Your task to perform on an android device: Open accessibility settings Image 0: 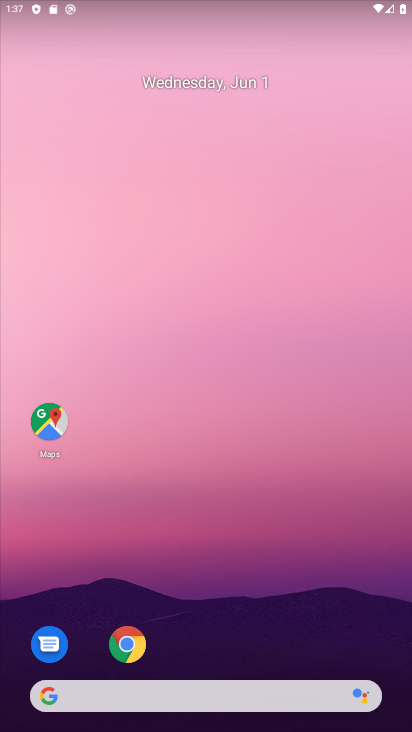
Step 0: drag from (272, 641) to (326, 98)
Your task to perform on an android device: Open accessibility settings Image 1: 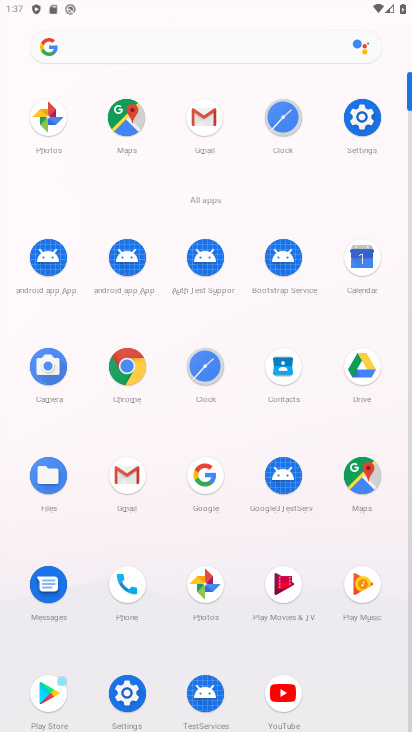
Step 1: click (359, 115)
Your task to perform on an android device: Open accessibility settings Image 2: 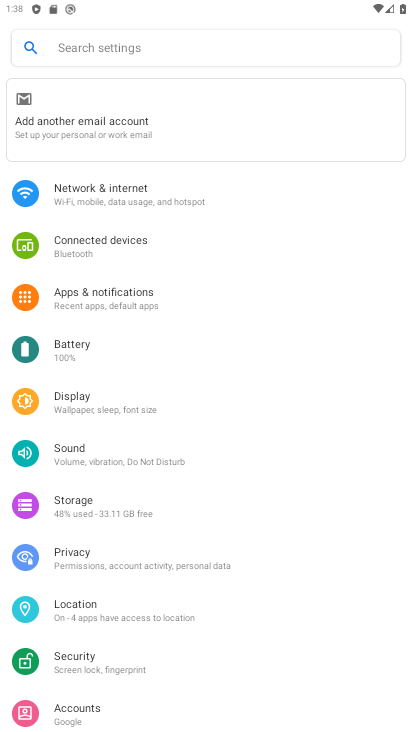
Step 2: drag from (148, 604) to (252, 328)
Your task to perform on an android device: Open accessibility settings Image 3: 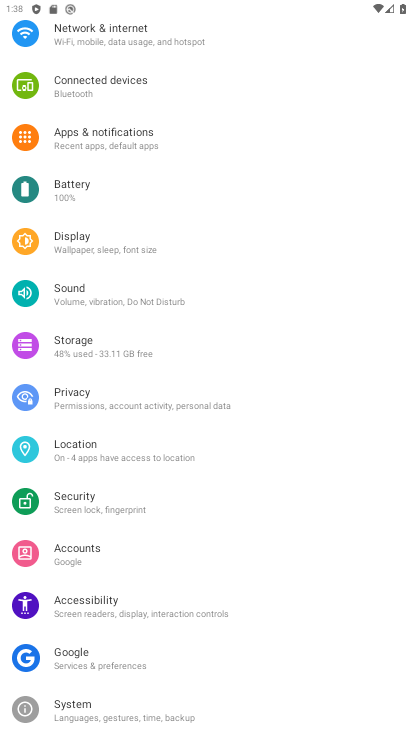
Step 3: click (90, 619)
Your task to perform on an android device: Open accessibility settings Image 4: 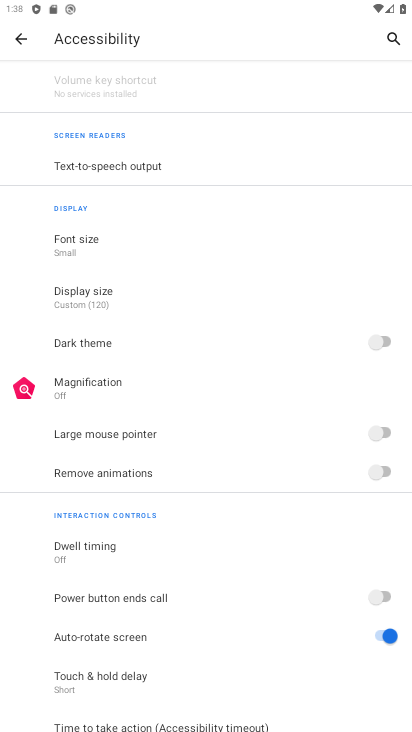
Step 4: task complete